Your task to perform on an android device: Go to Yahoo.com Image 0: 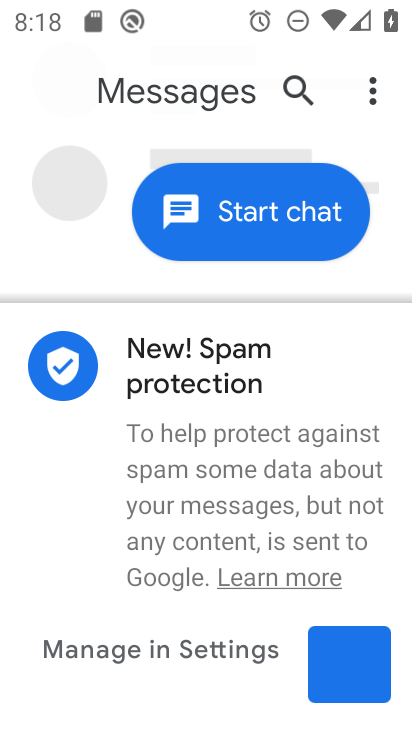
Step 0: press home button
Your task to perform on an android device: Go to Yahoo.com Image 1: 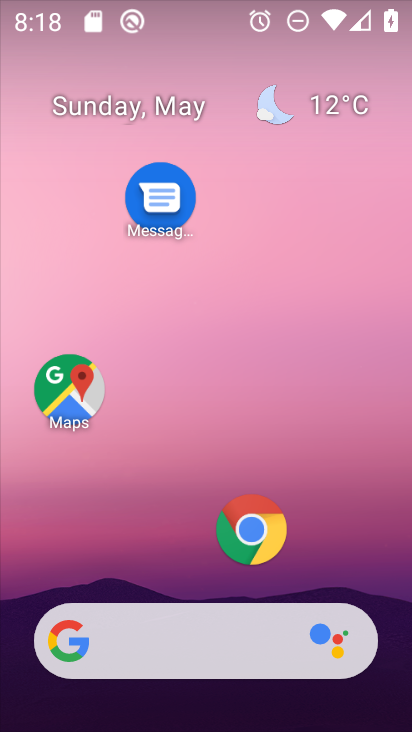
Step 1: click (249, 523)
Your task to perform on an android device: Go to Yahoo.com Image 2: 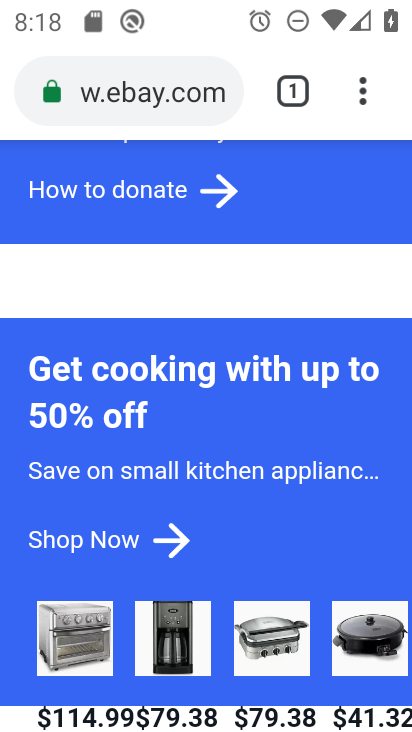
Step 2: press back button
Your task to perform on an android device: Go to Yahoo.com Image 3: 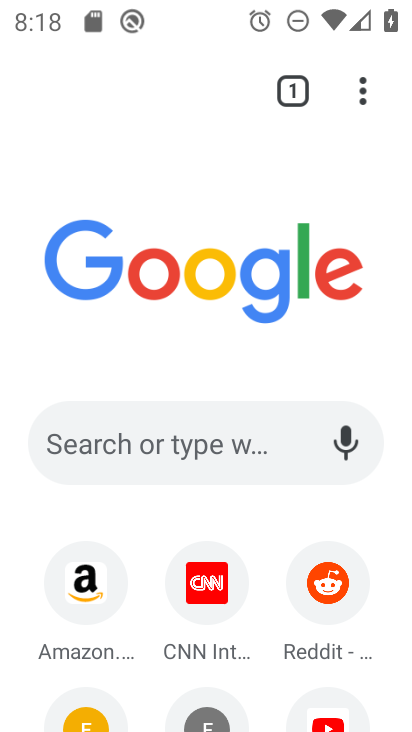
Step 3: click (187, 431)
Your task to perform on an android device: Go to Yahoo.com Image 4: 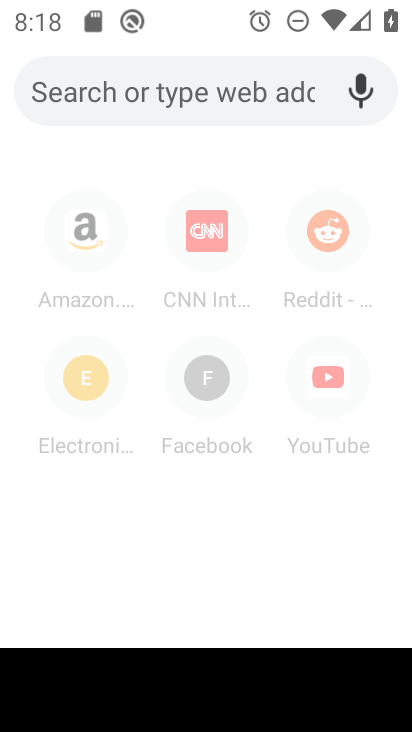
Step 4: type "yahoo.com"
Your task to perform on an android device: Go to Yahoo.com Image 5: 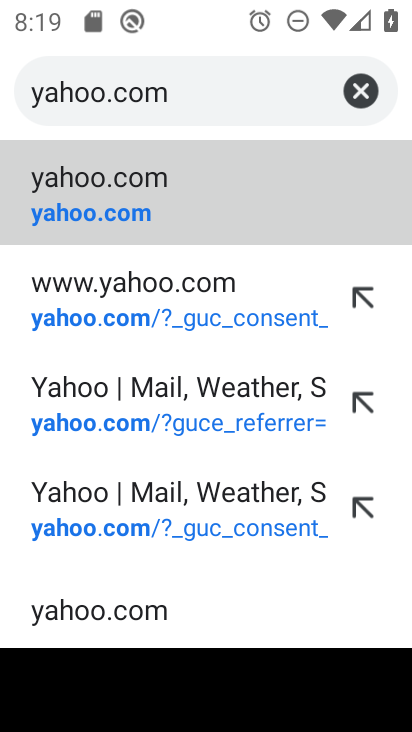
Step 5: click (162, 188)
Your task to perform on an android device: Go to Yahoo.com Image 6: 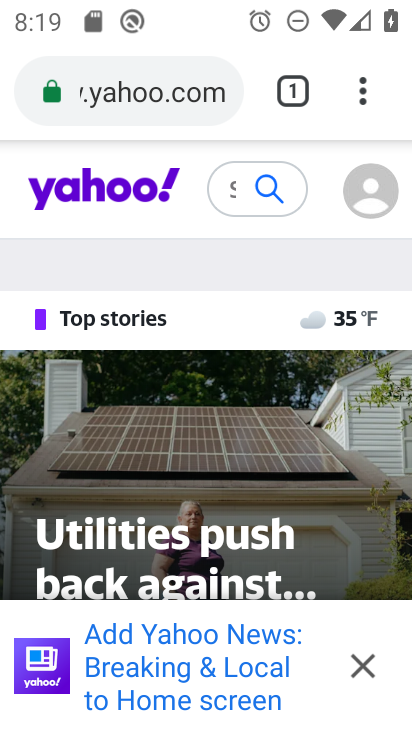
Step 6: task complete